Your task to perform on an android device: Go to Google Image 0: 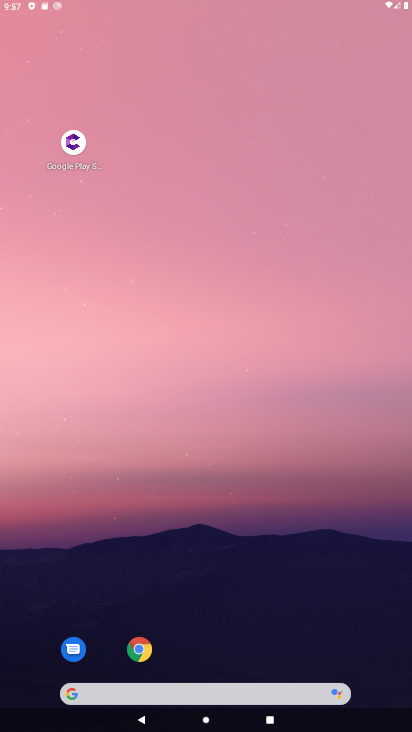
Step 0: drag from (255, 215) to (264, 174)
Your task to perform on an android device: Go to Google Image 1: 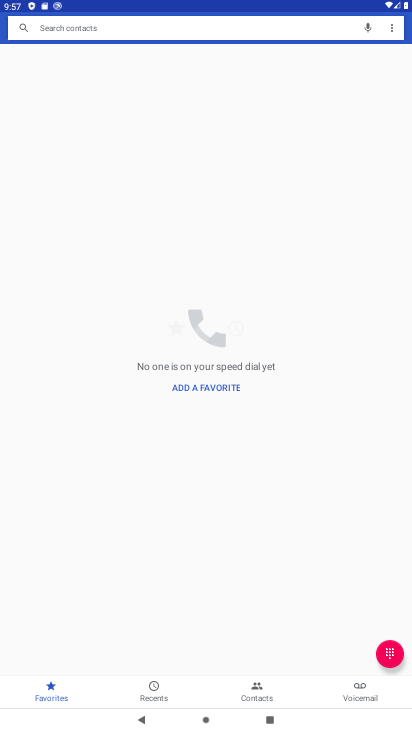
Step 1: press home button
Your task to perform on an android device: Go to Google Image 2: 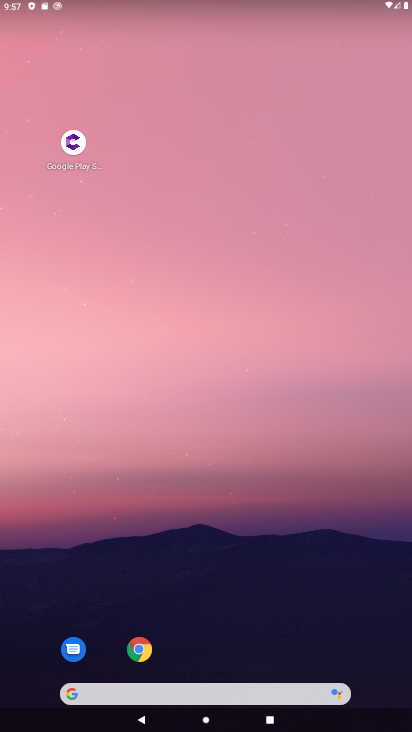
Step 2: drag from (281, 323) to (268, 184)
Your task to perform on an android device: Go to Google Image 3: 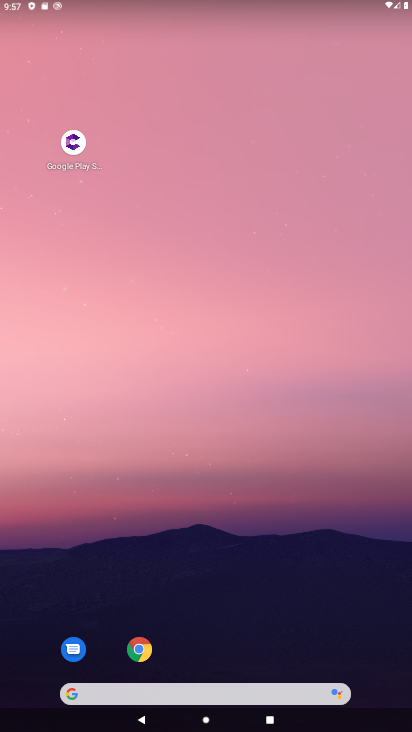
Step 3: drag from (252, 547) to (277, 37)
Your task to perform on an android device: Go to Google Image 4: 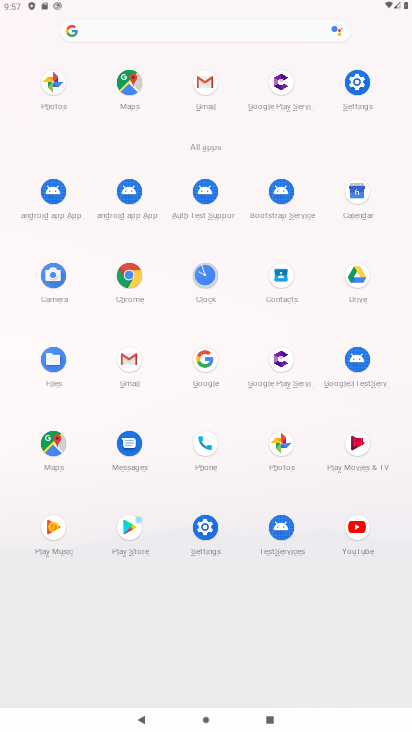
Step 4: click (208, 360)
Your task to perform on an android device: Go to Google Image 5: 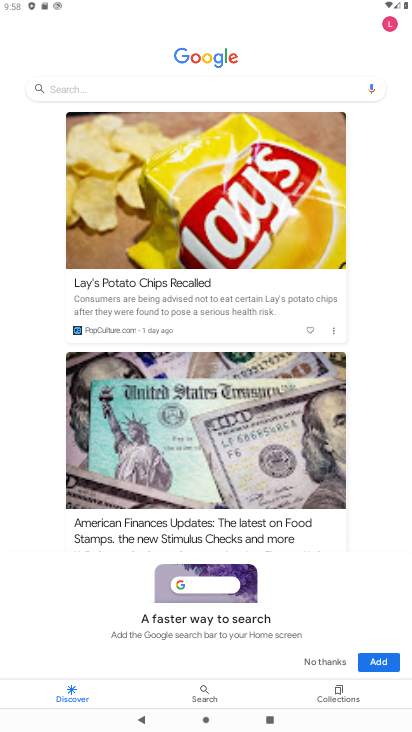
Step 5: task complete